Your task to perform on an android device: Go to location settings Image 0: 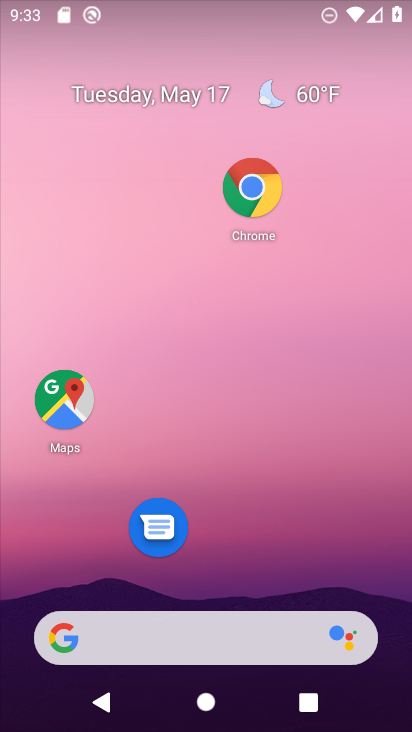
Step 0: drag from (261, 578) to (222, 86)
Your task to perform on an android device: Go to location settings Image 1: 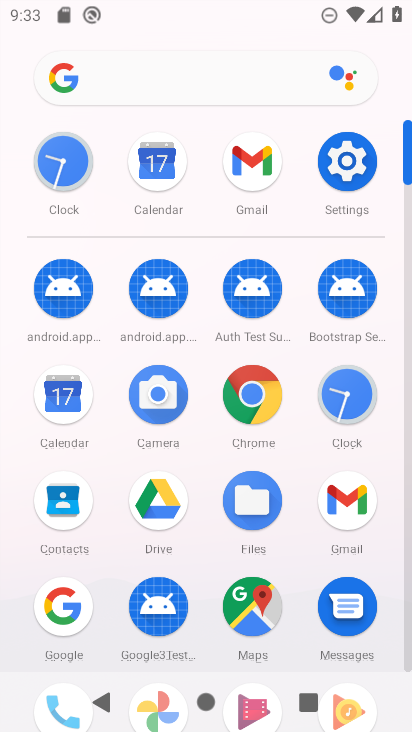
Step 1: click (348, 202)
Your task to perform on an android device: Go to location settings Image 2: 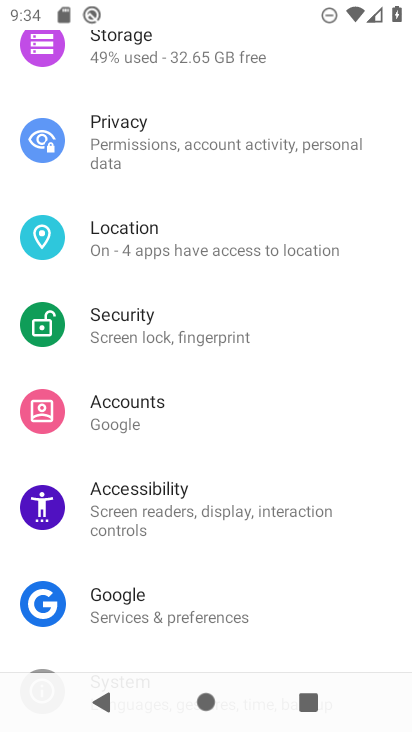
Step 2: click (183, 233)
Your task to perform on an android device: Go to location settings Image 3: 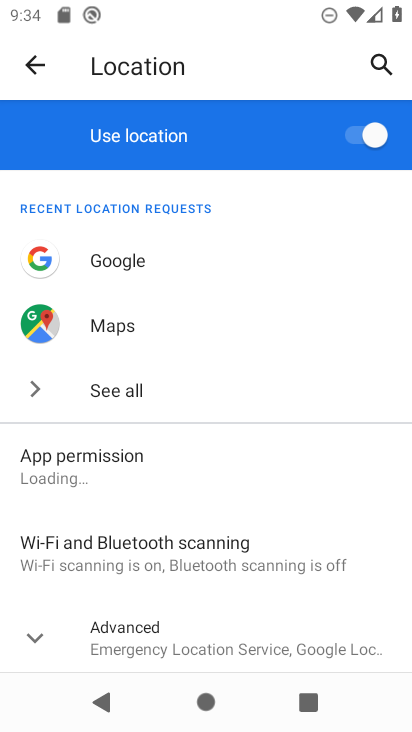
Step 3: click (324, 160)
Your task to perform on an android device: Go to location settings Image 4: 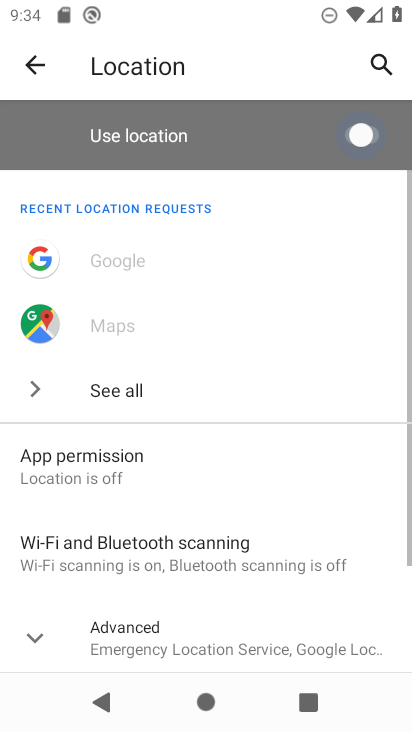
Step 4: click (324, 160)
Your task to perform on an android device: Go to location settings Image 5: 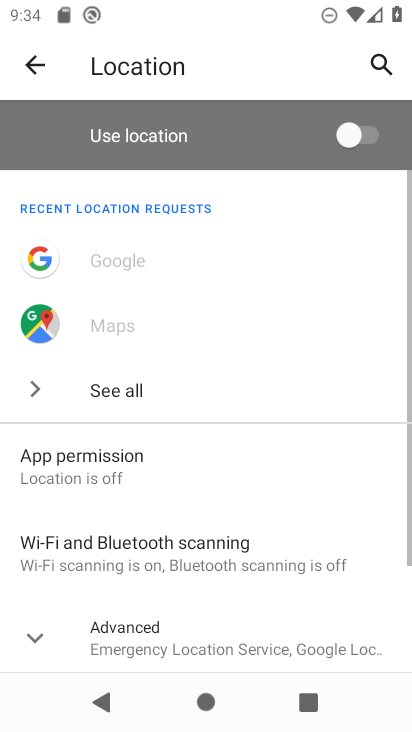
Step 5: click (324, 160)
Your task to perform on an android device: Go to location settings Image 6: 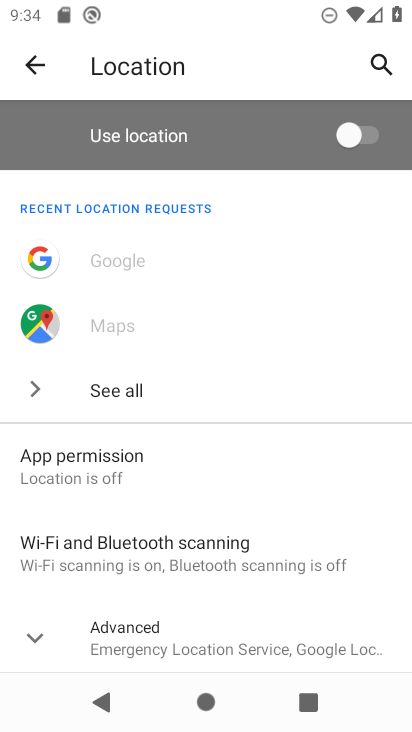
Step 6: task complete